Your task to perform on an android device: Open eBay Image 0: 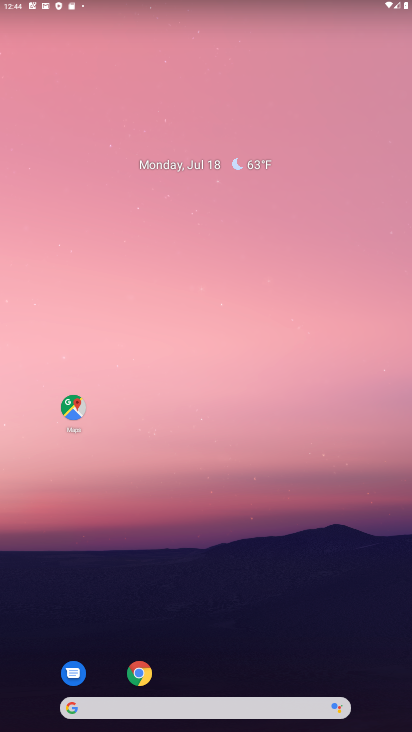
Step 0: click (135, 681)
Your task to perform on an android device: Open eBay Image 1: 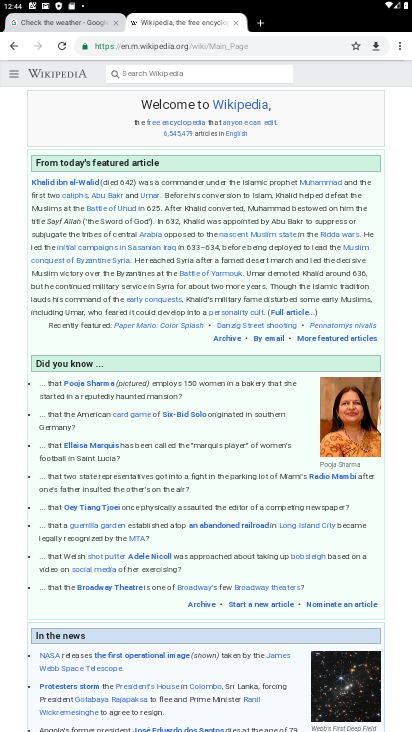
Step 1: click (403, 48)
Your task to perform on an android device: Open eBay Image 2: 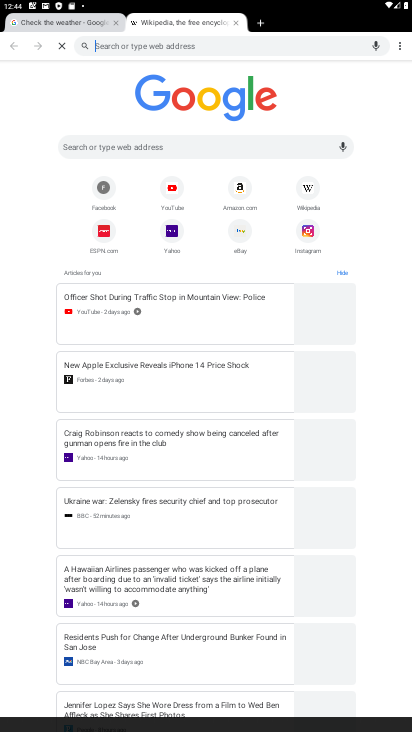
Step 2: click (403, 48)
Your task to perform on an android device: Open eBay Image 3: 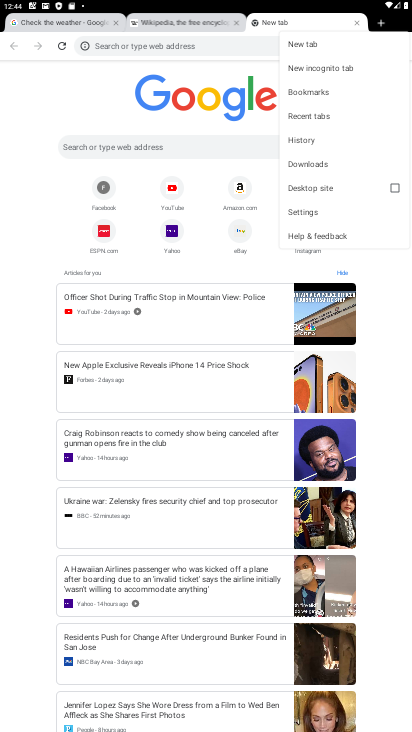
Step 3: click (309, 41)
Your task to perform on an android device: Open eBay Image 4: 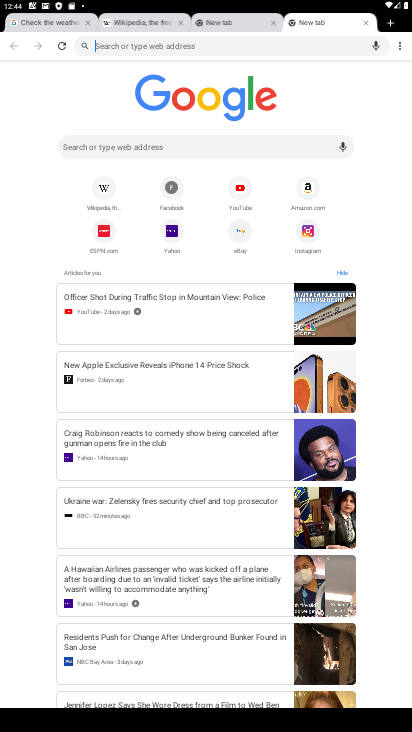
Step 4: click (243, 228)
Your task to perform on an android device: Open eBay Image 5: 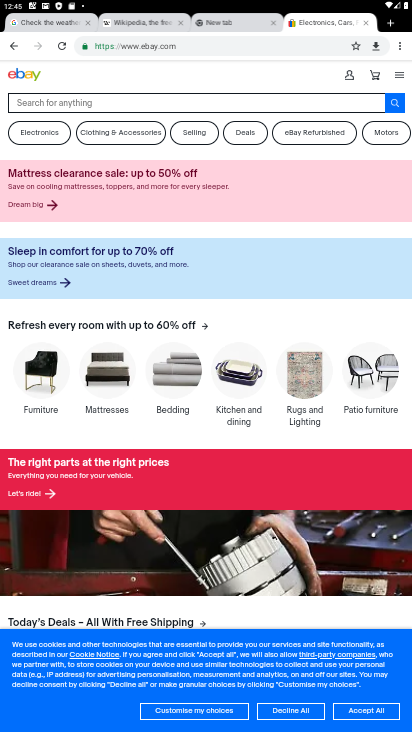
Step 5: task complete